Your task to perform on an android device: all mails in gmail Image 0: 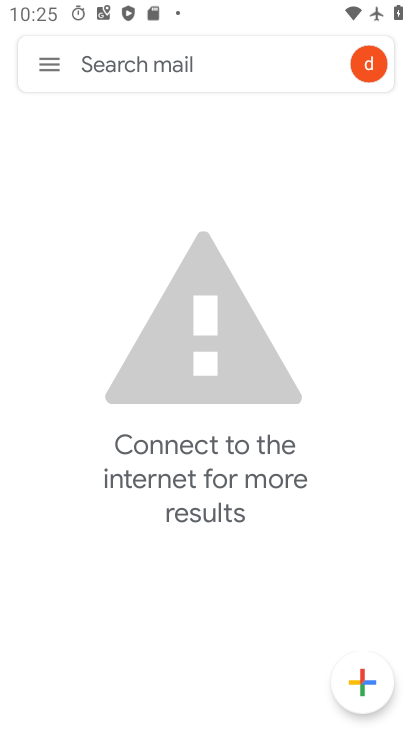
Step 0: click (35, 49)
Your task to perform on an android device: all mails in gmail Image 1: 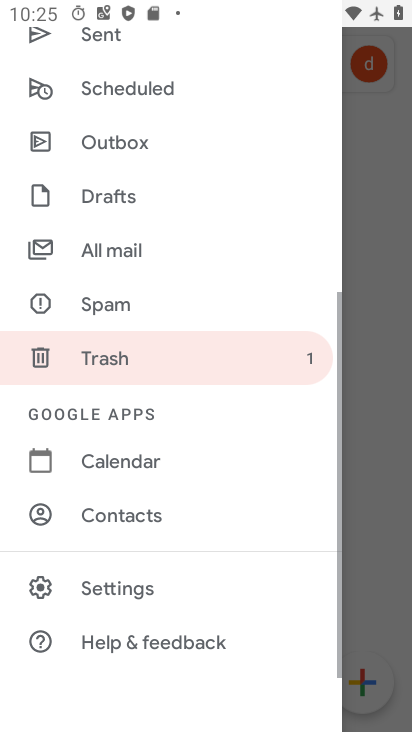
Step 1: drag from (255, 95) to (245, 313)
Your task to perform on an android device: all mails in gmail Image 2: 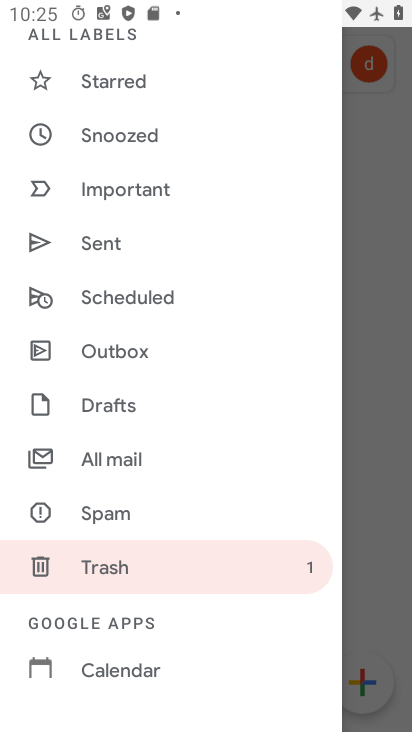
Step 2: click (141, 463)
Your task to perform on an android device: all mails in gmail Image 3: 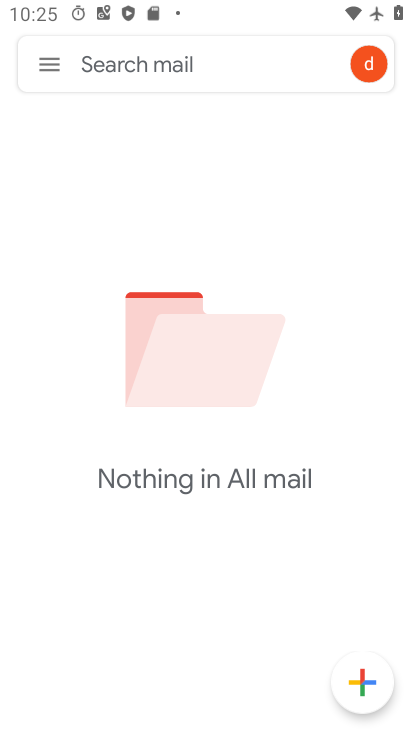
Step 3: task complete